Your task to perform on an android device: delete a single message in the gmail app Image 0: 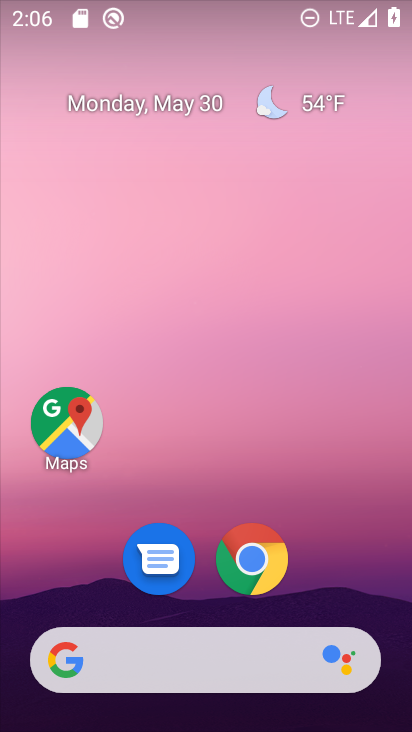
Step 0: drag from (319, 583) to (393, 6)
Your task to perform on an android device: delete a single message in the gmail app Image 1: 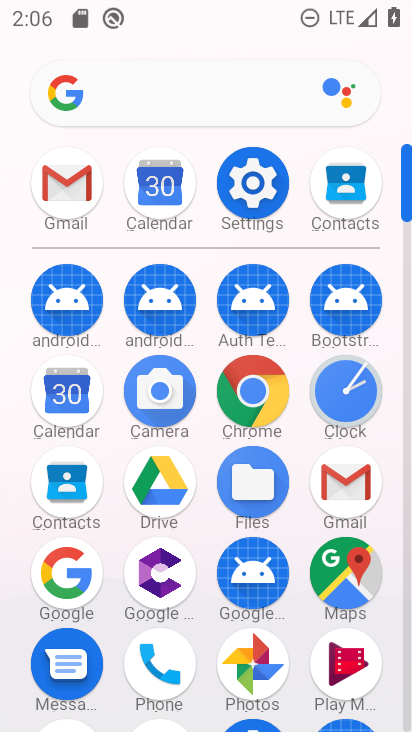
Step 1: click (73, 197)
Your task to perform on an android device: delete a single message in the gmail app Image 2: 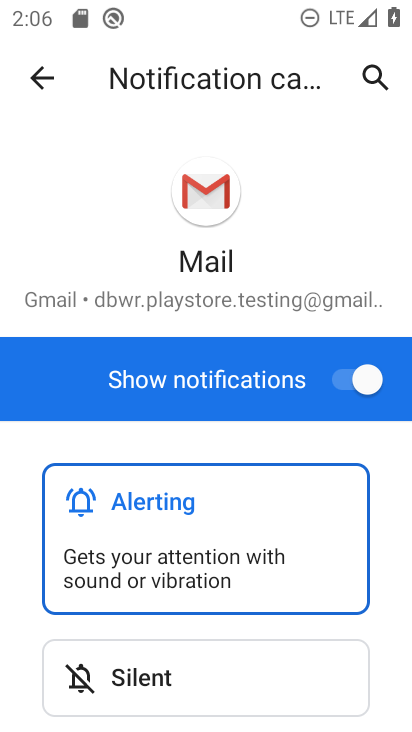
Step 2: click (56, 79)
Your task to perform on an android device: delete a single message in the gmail app Image 3: 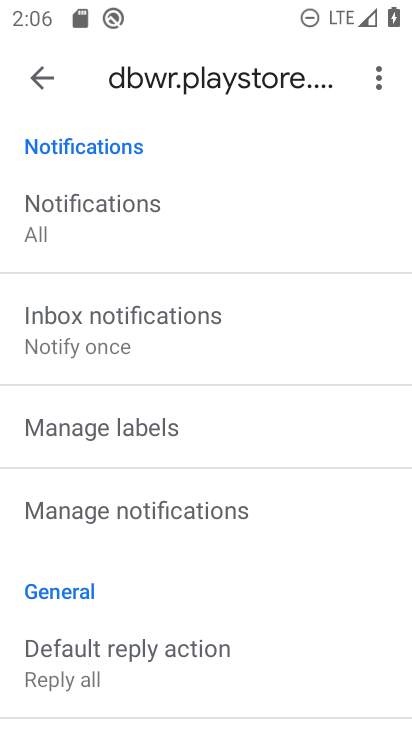
Step 3: click (56, 79)
Your task to perform on an android device: delete a single message in the gmail app Image 4: 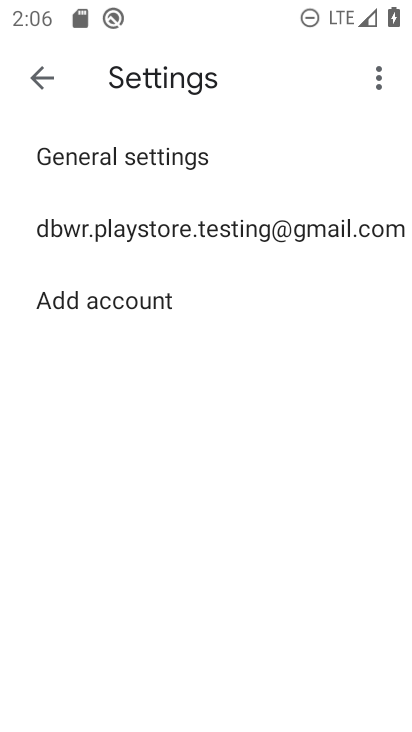
Step 4: click (56, 79)
Your task to perform on an android device: delete a single message in the gmail app Image 5: 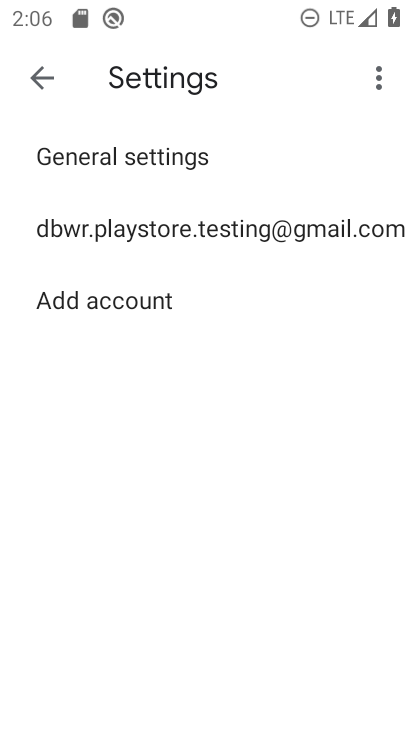
Step 5: click (40, 87)
Your task to perform on an android device: delete a single message in the gmail app Image 6: 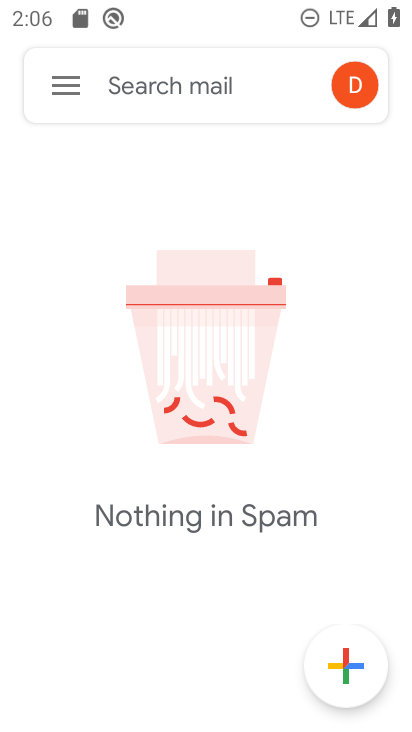
Step 6: click (58, 80)
Your task to perform on an android device: delete a single message in the gmail app Image 7: 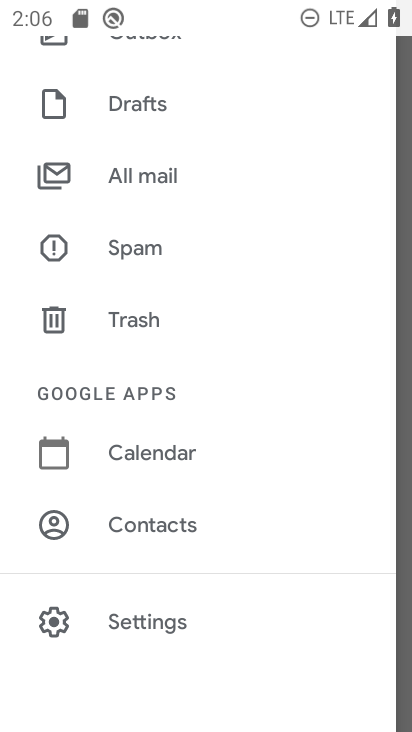
Step 7: click (164, 164)
Your task to perform on an android device: delete a single message in the gmail app Image 8: 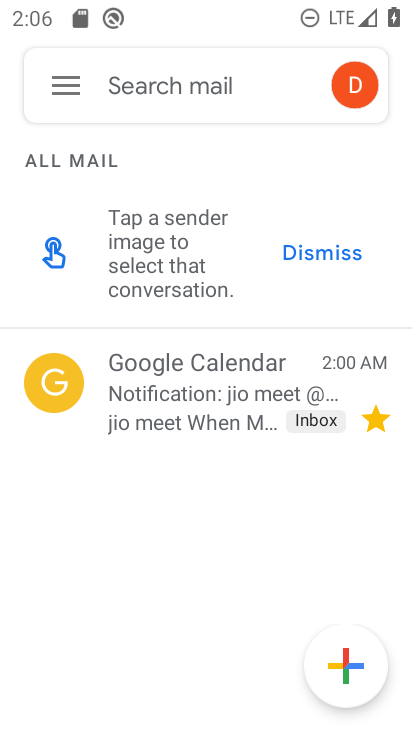
Step 8: click (172, 390)
Your task to perform on an android device: delete a single message in the gmail app Image 9: 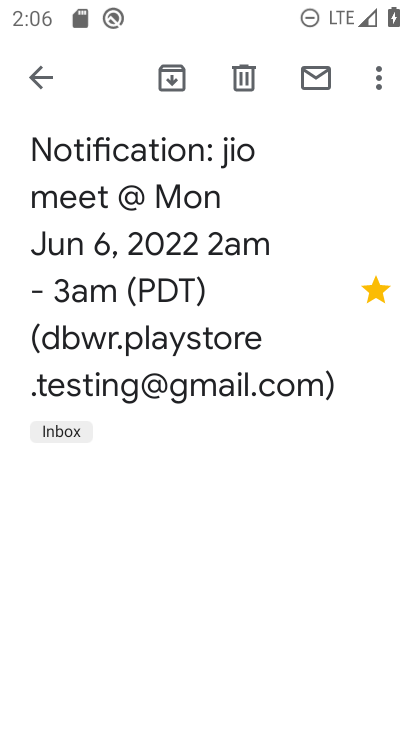
Step 9: click (251, 87)
Your task to perform on an android device: delete a single message in the gmail app Image 10: 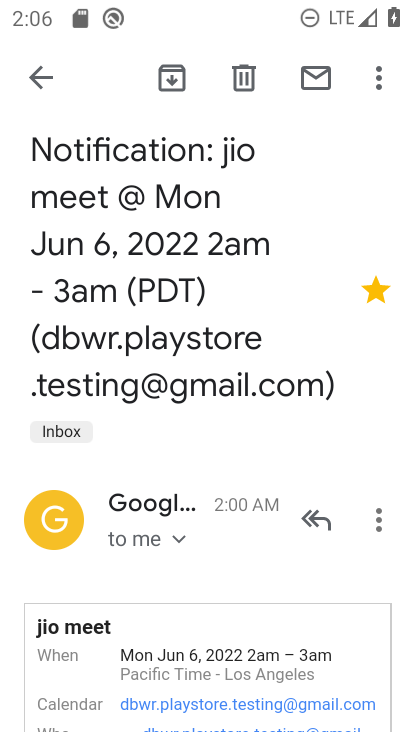
Step 10: click (247, 88)
Your task to perform on an android device: delete a single message in the gmail app Image 11: 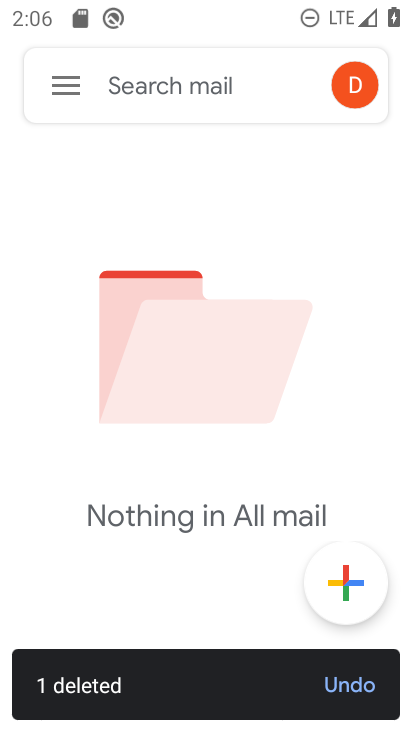
Step 11: task complete